Your task to perform on an android device: Go to Yahoo.com Image 0: 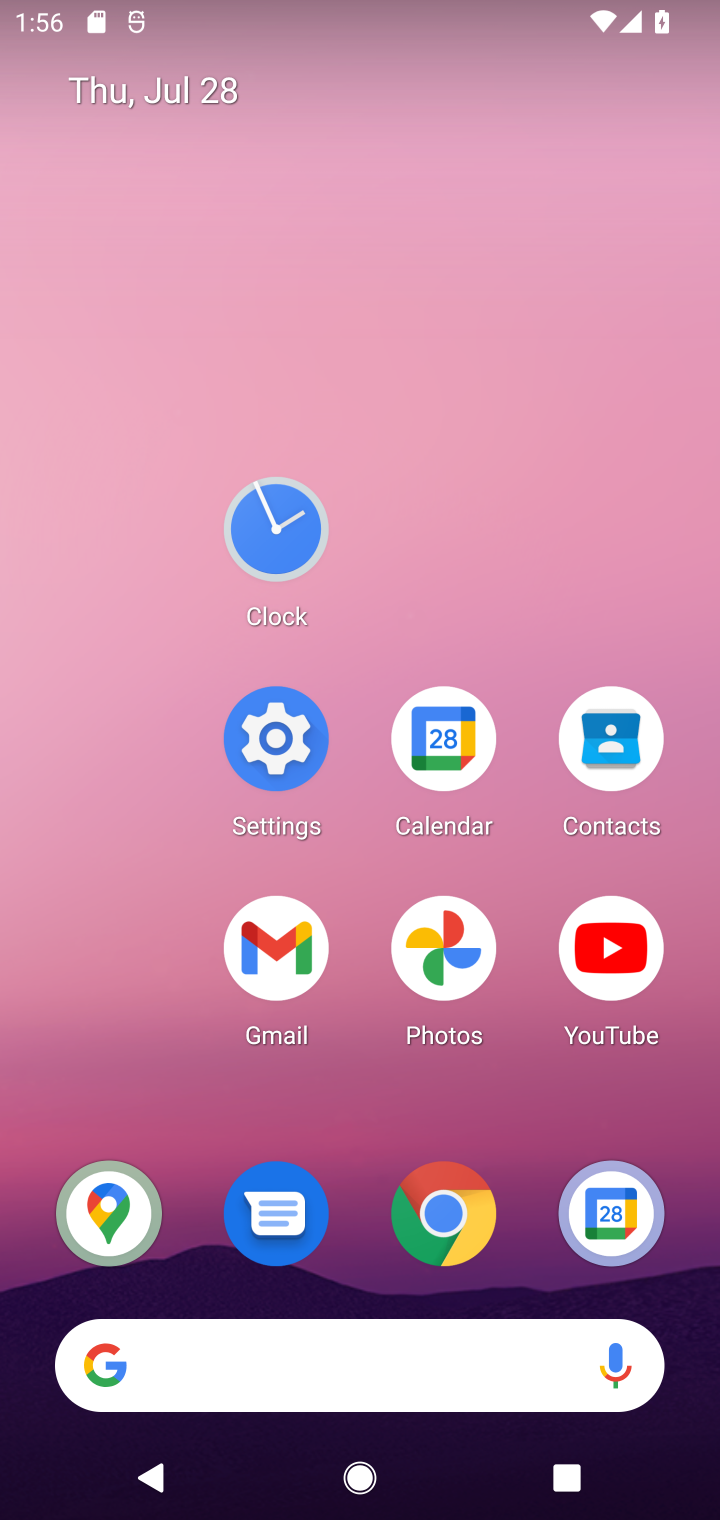
Step 0: click (270, 730)
Your task to perform on an android device: Go to Yahoo.com Image 1: 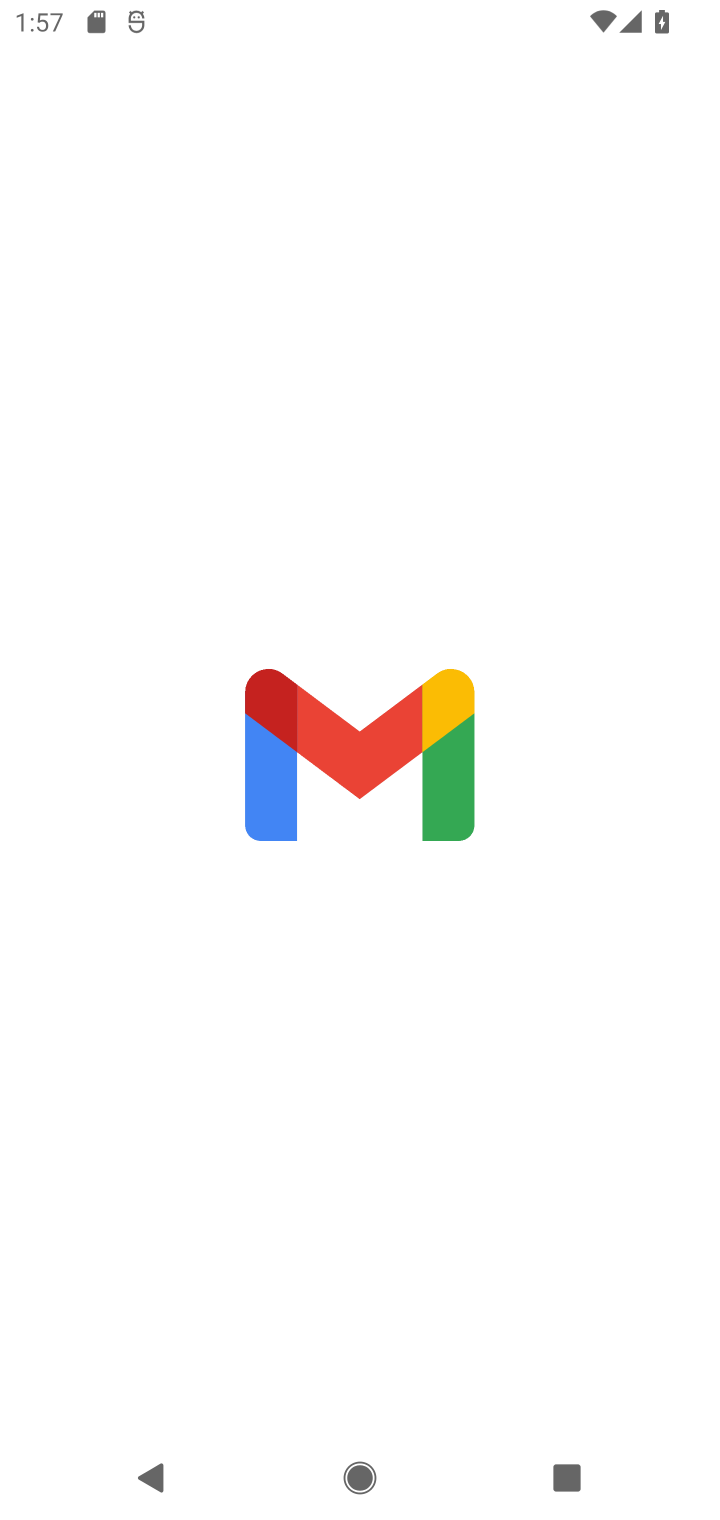
Step 1: press home button
Your task to perform on an android device: Go to Yahoo.com Image 2: 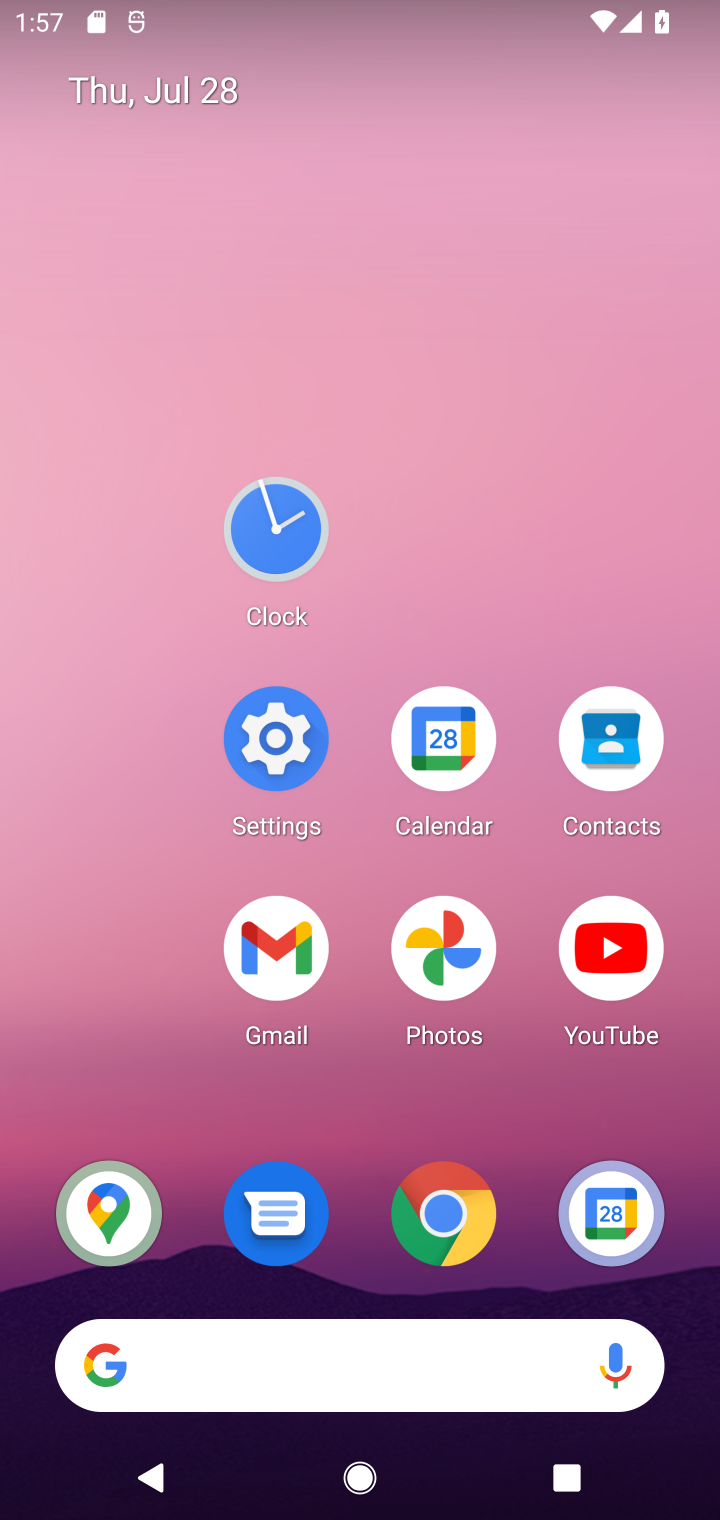
Step 2: click (462, 1225)
Your task to perform on an android device: Go to Yahoo.com Image 3: 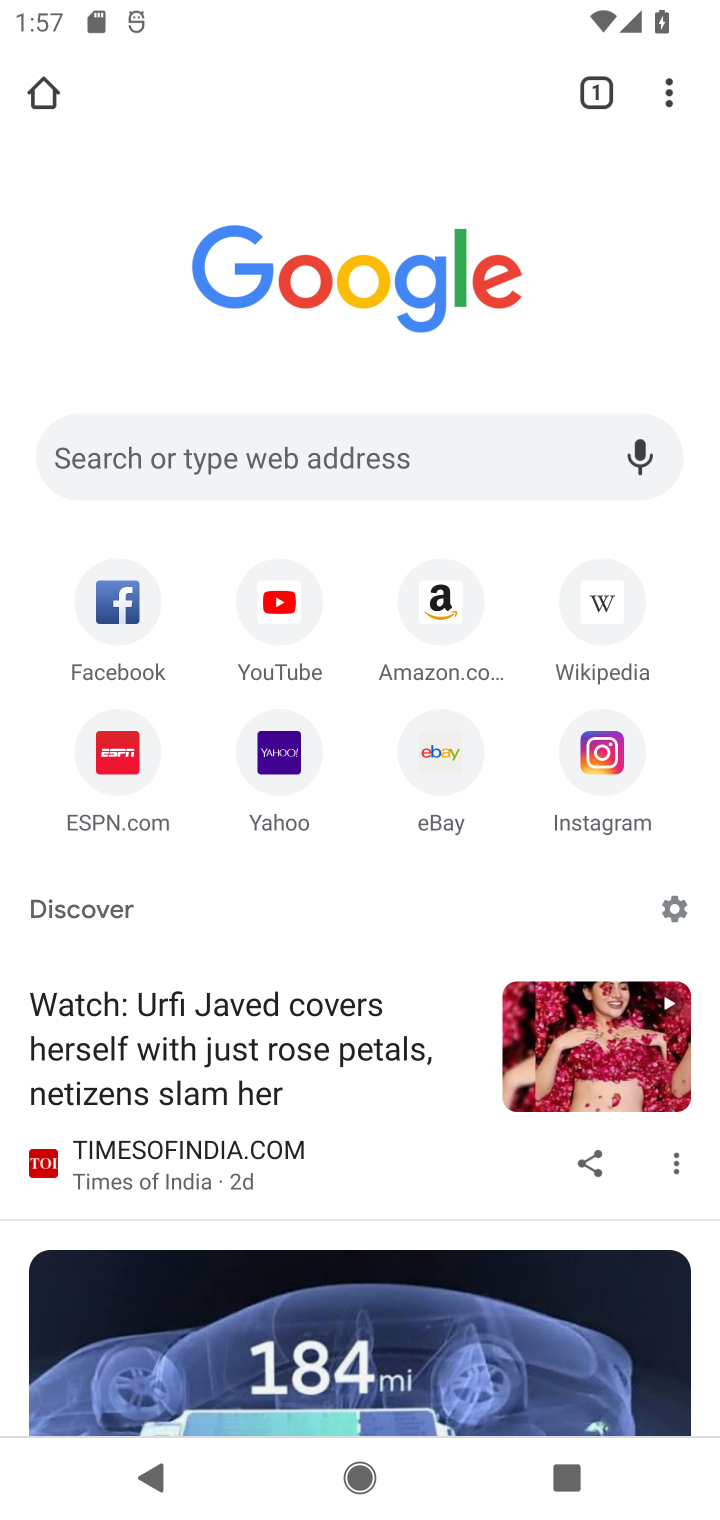
Step 3: click (281, 735)
Your task to perform on an android device: Go to Yahoo.com Image 4: 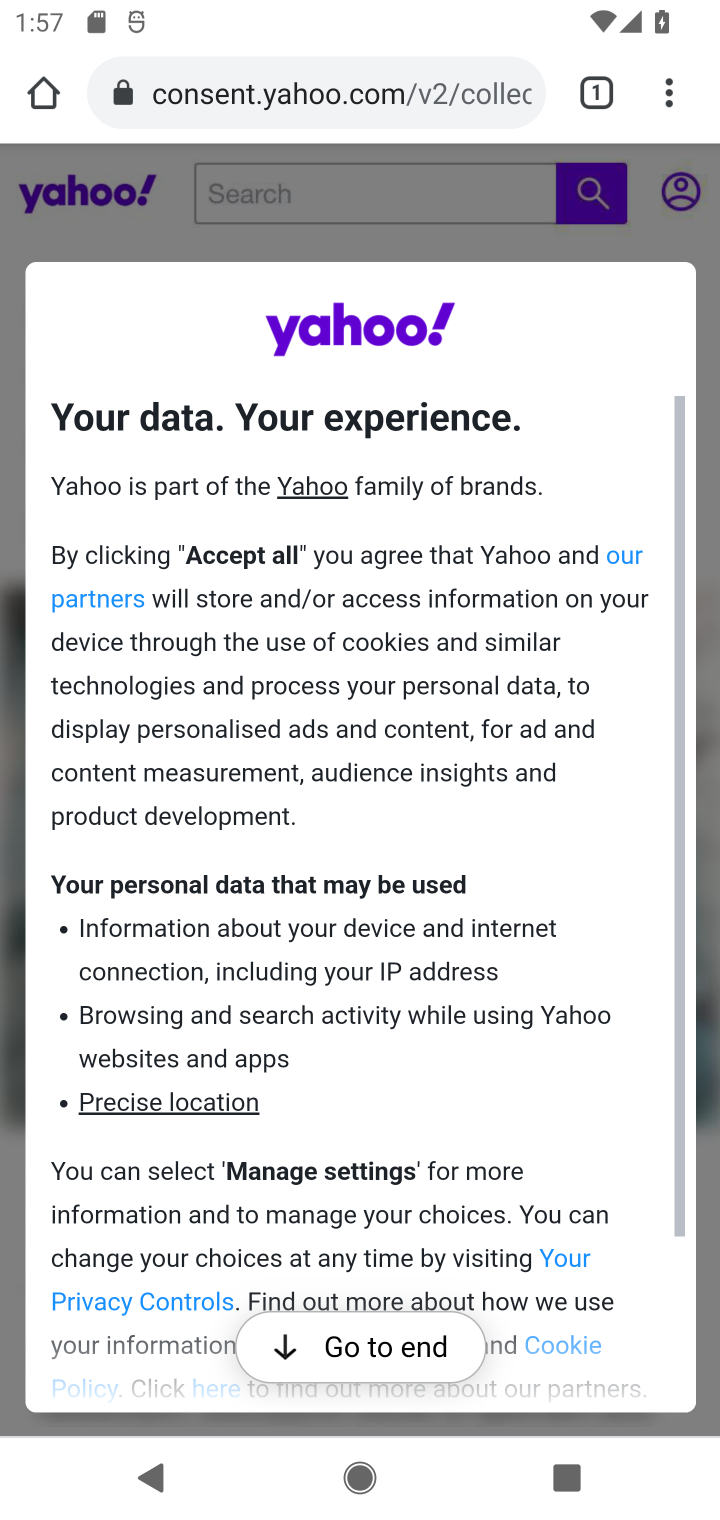
Step 4: drag from (536, 1147) to (517, 353)
Your task to perform on an android device: Go to Yahoo.com Image 5: 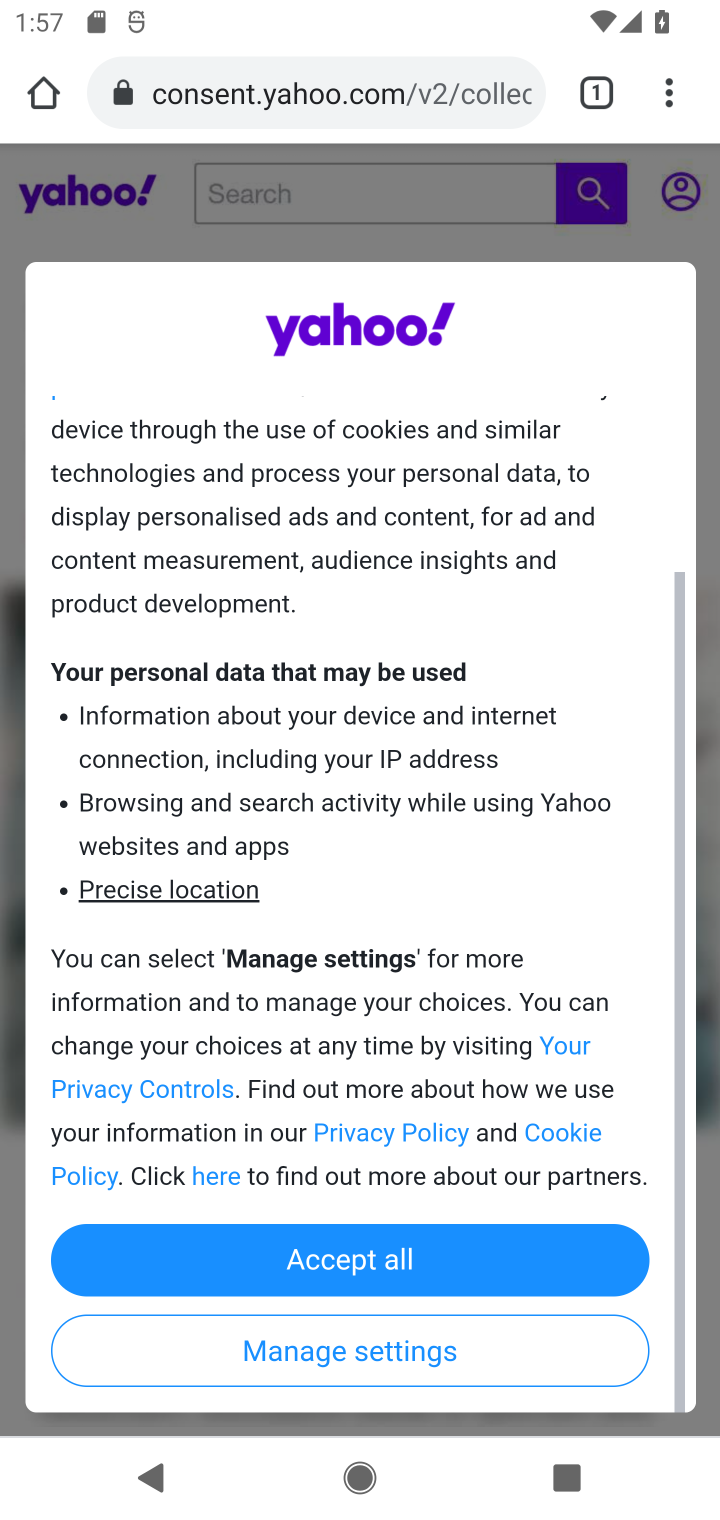
Step 5: click (367, 1255)
Your task to perform on an android device: Go to Yahoo.com Image 6: 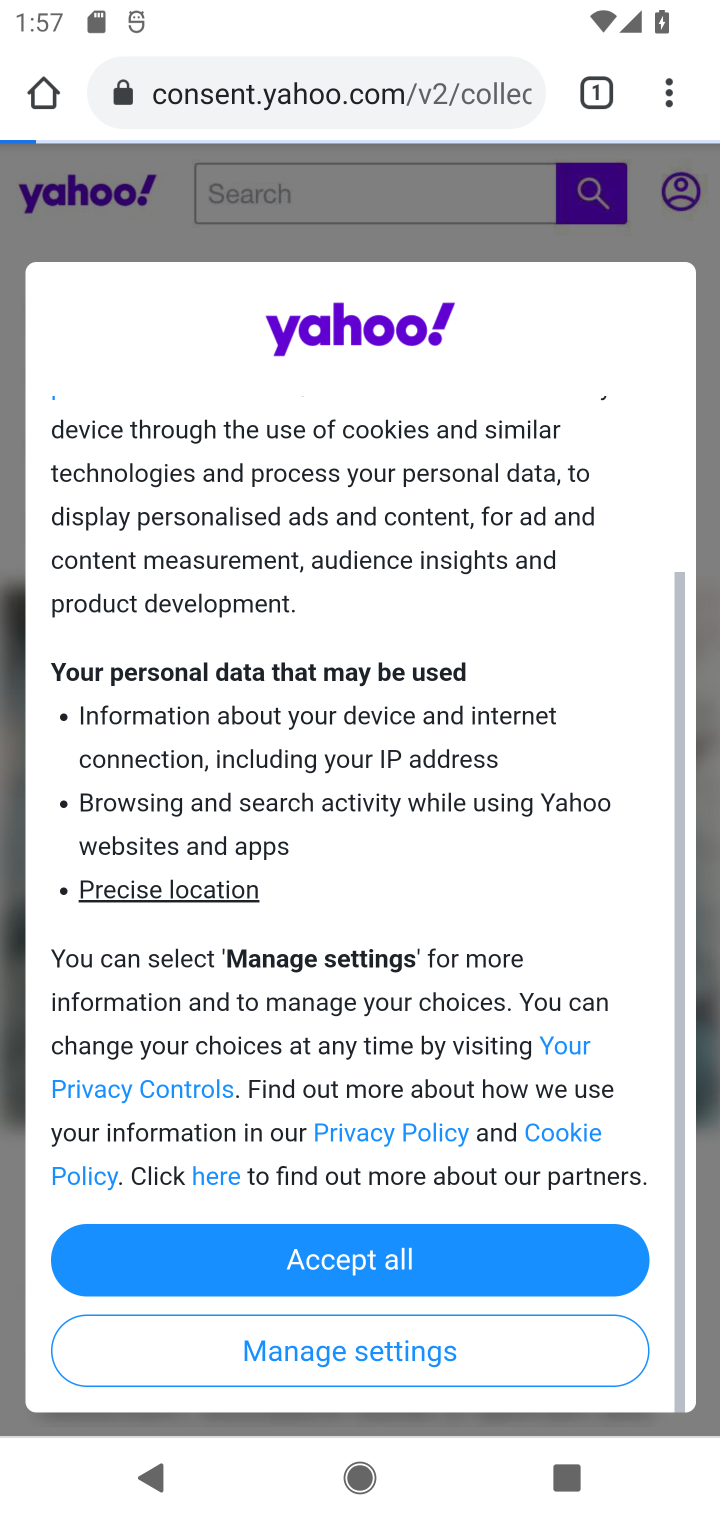
Step 6: click (332, 1276)
Your task to perform on an android device: Go to Yahoo.com Image 7: 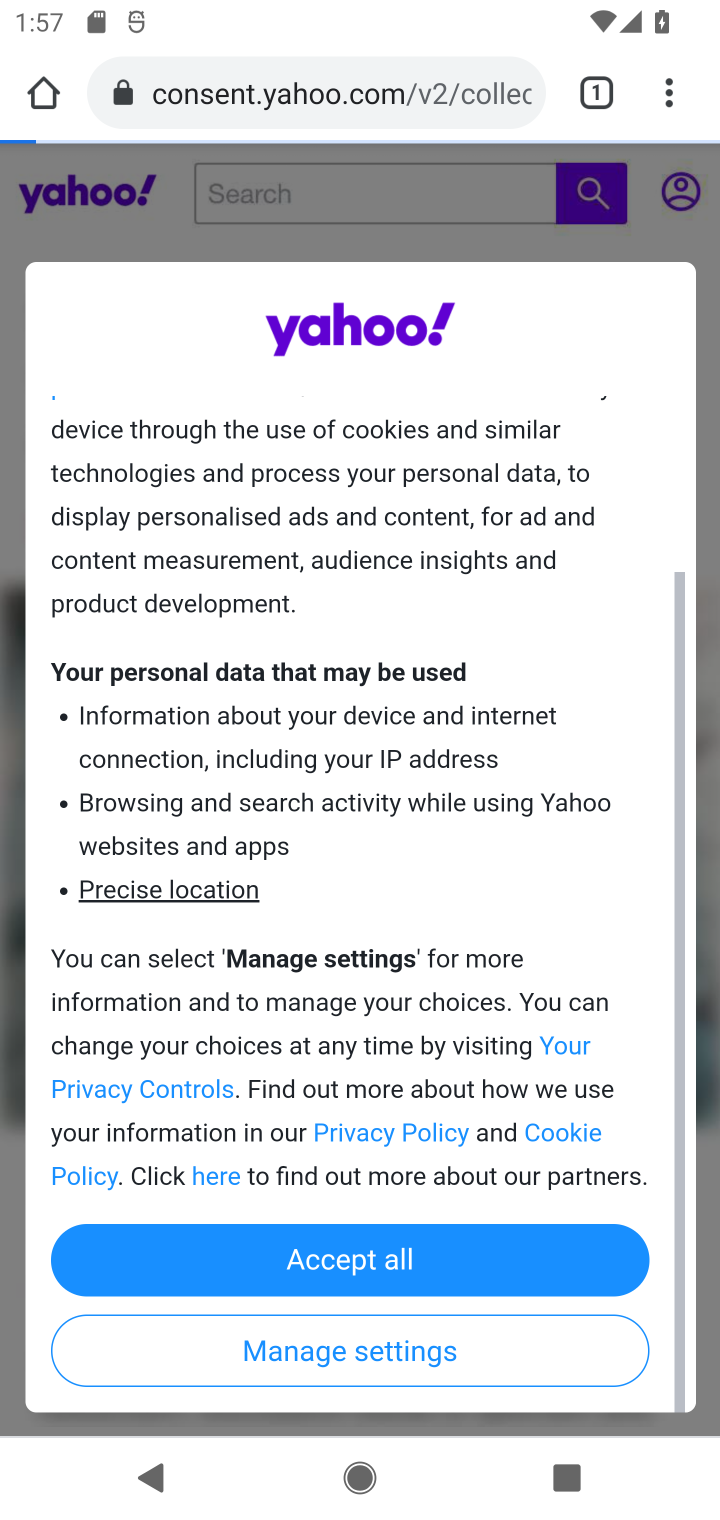
Step 7: click (408, 1252)
Your task to perform on an android device: Go to Yahoo.com Image 8: 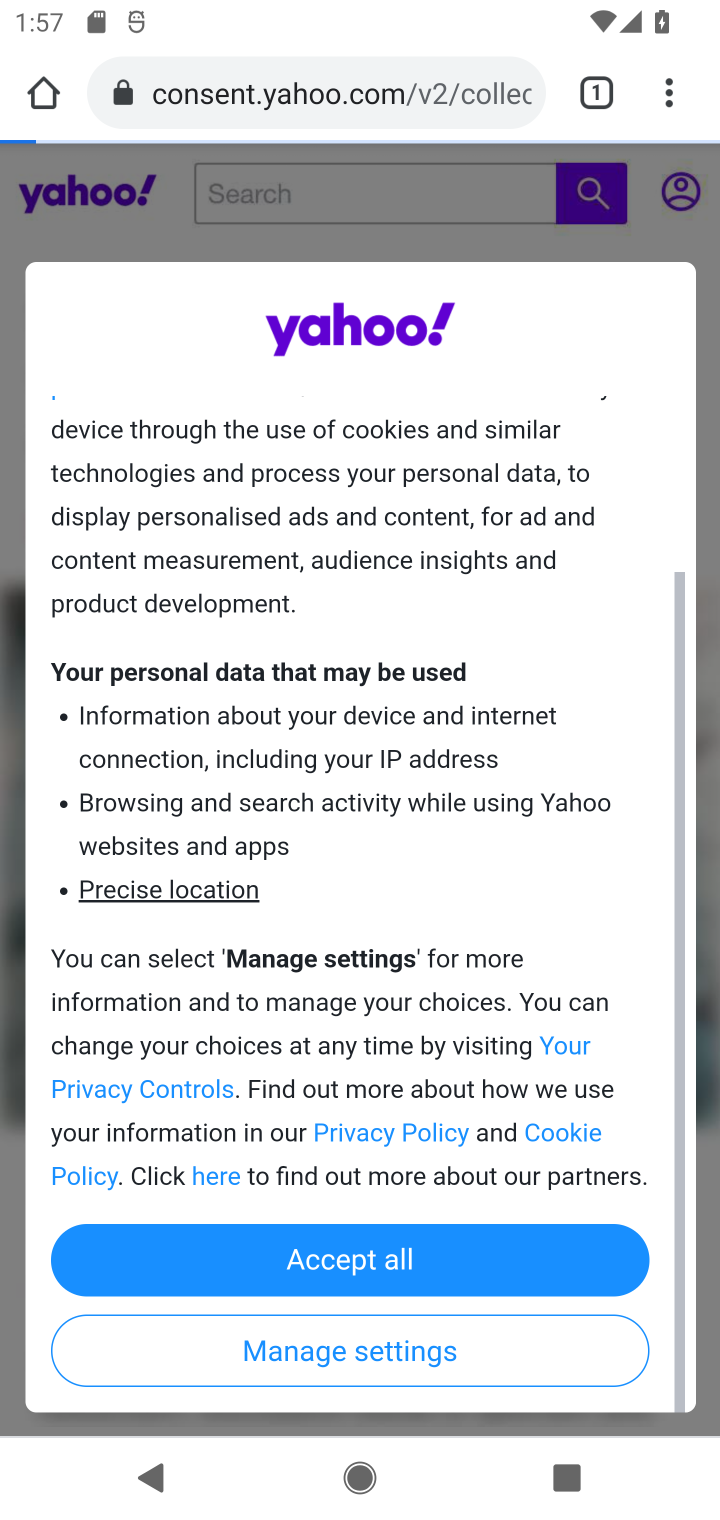
Step 8: click (408, 1252)
Your task to perform on an android device: Go to Yahoo.com Image 9: 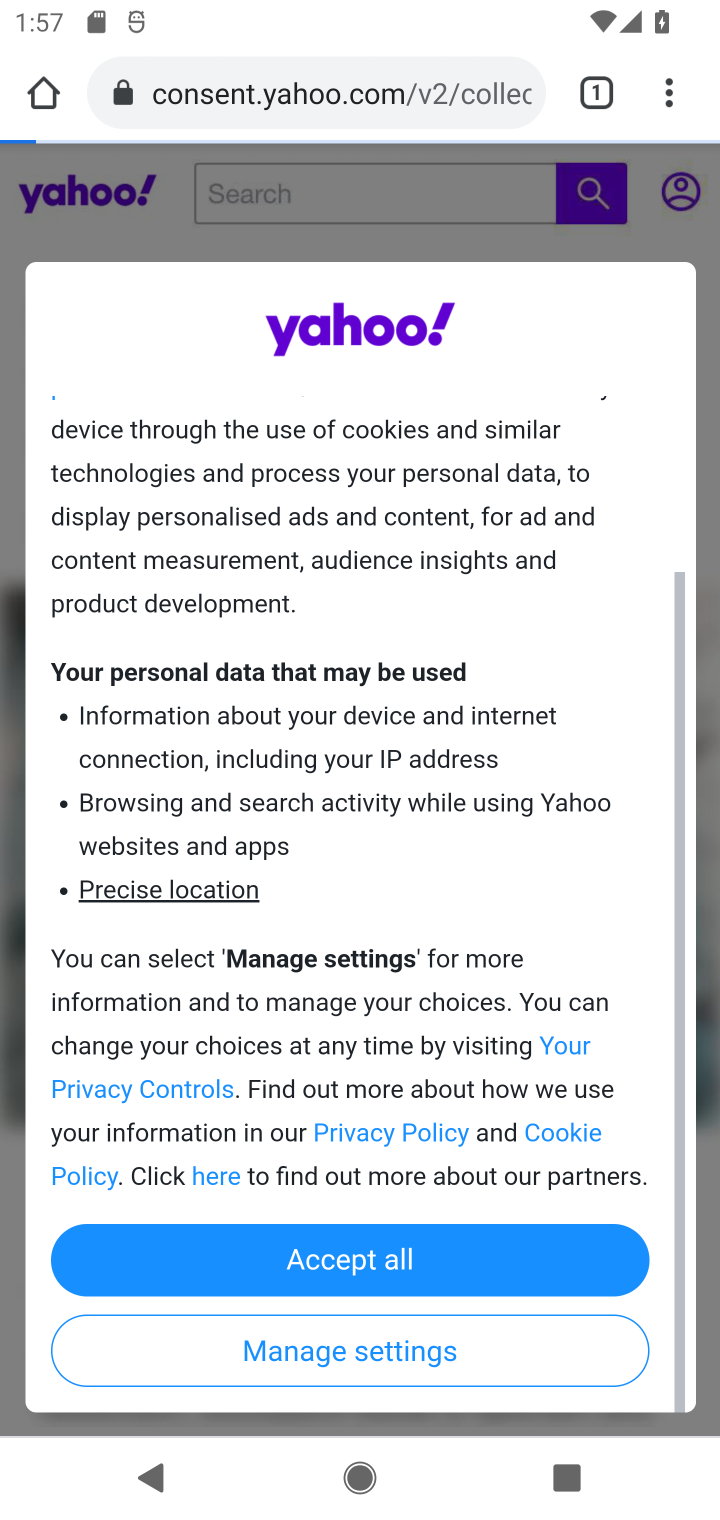
Step 9: drag from (546, 890) to (541, 303)
Your task to perform on an android device: Go to Yahoo.com Image 10: 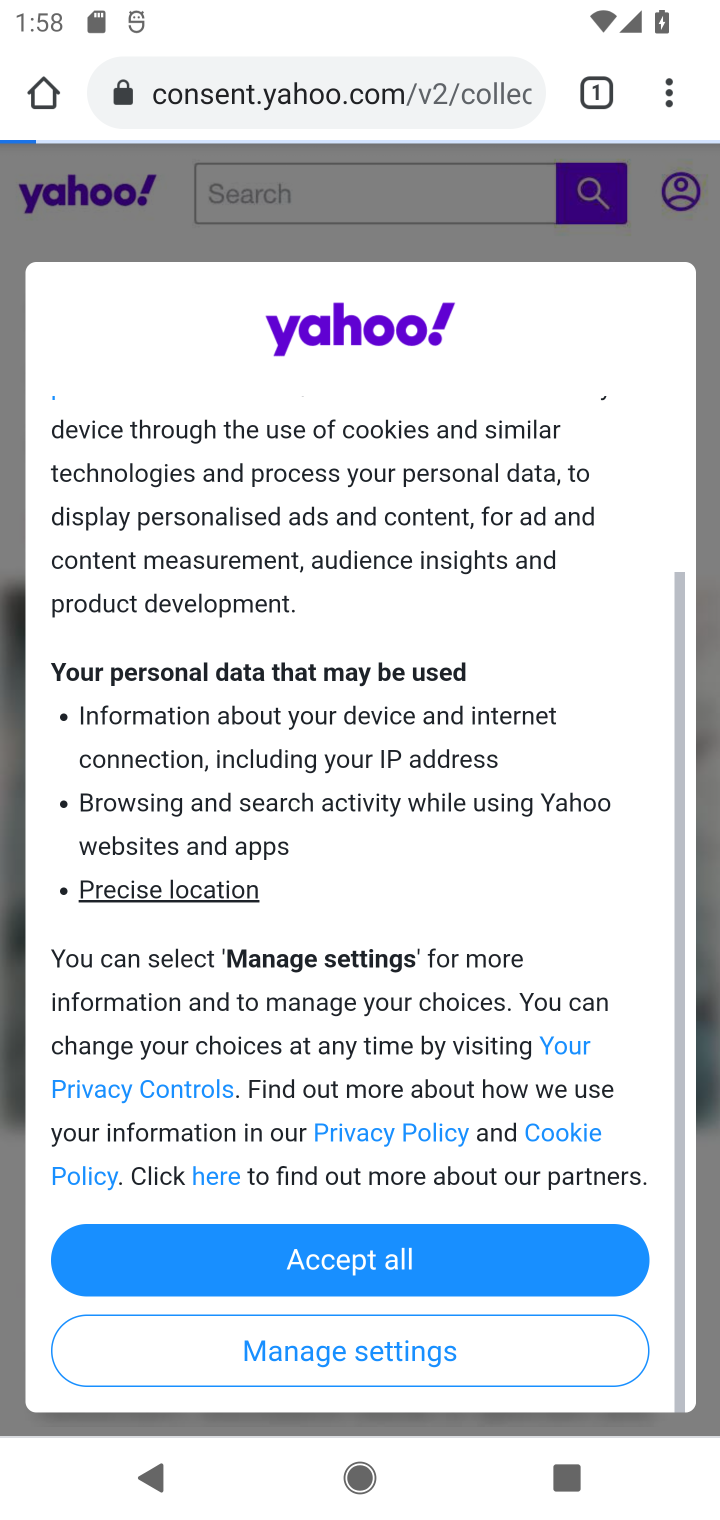
Step 10: click (353, 1248)
Your task to perform on an android device: Go to Yahoo.com Image 11: 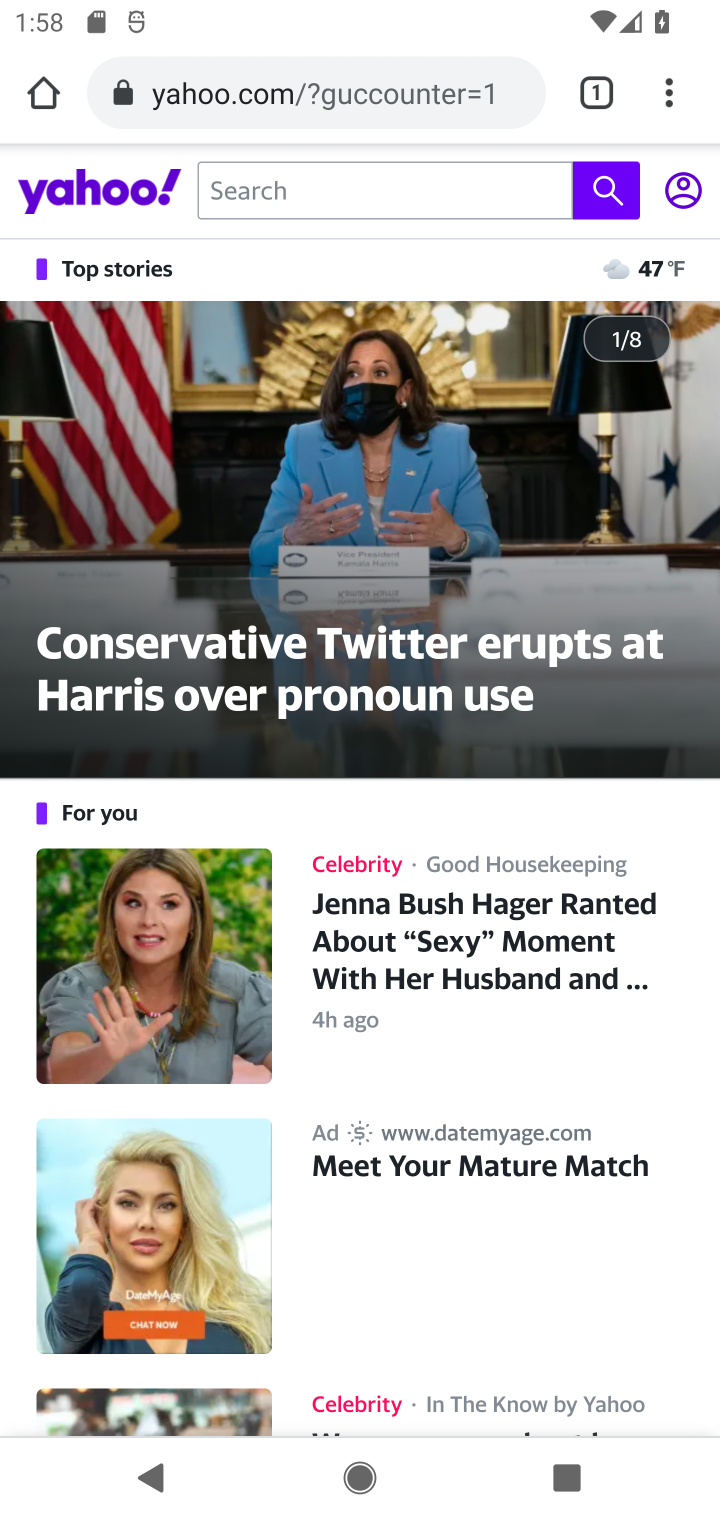
Step 11: task complete